Your task to perform on an android device: Open Google Image 0: 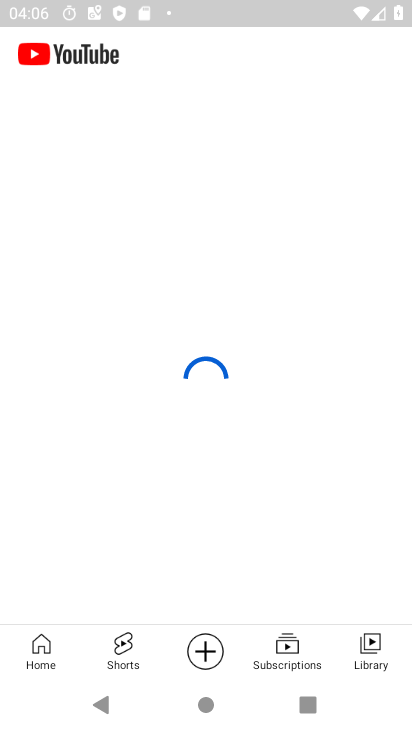
Step 0: click (96, 553)
Your task to perform on an android device: Open Google Image 1: 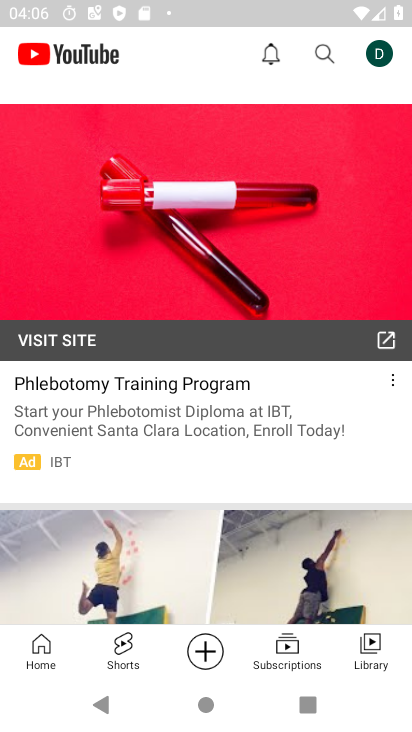
Step 1: press home button
Your task to perform on an android device: Open Google Image 2: 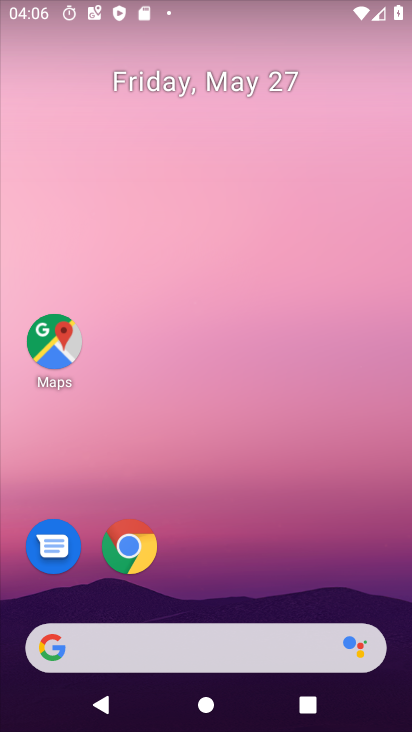
Step 2: drag from (394, 691) to (368, 297)
Your task to perform on an android device: Open Google Image 3: 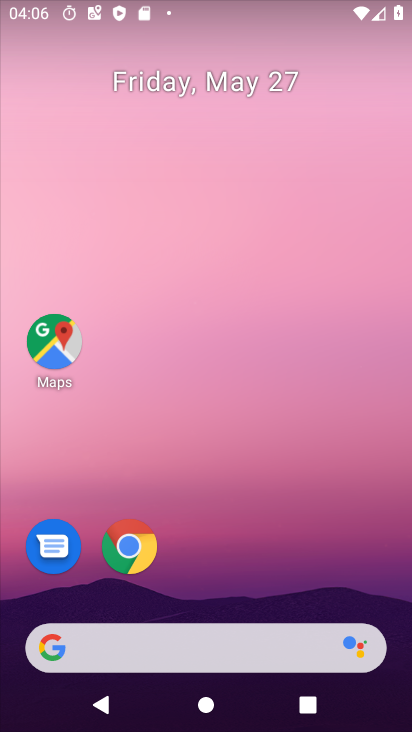
Step 3: drag from (403, 674) to (408, 260)
Your task to perform on an android device: Open Google Image 4: 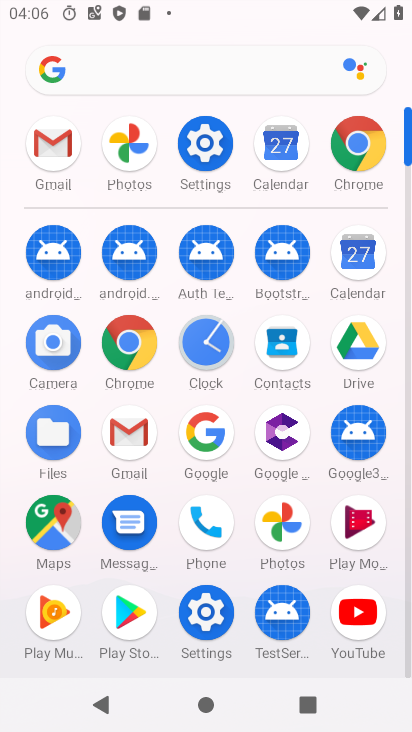
Step 4: click (197, 447)
Your task to perform on an android device: Open Google Image 5: 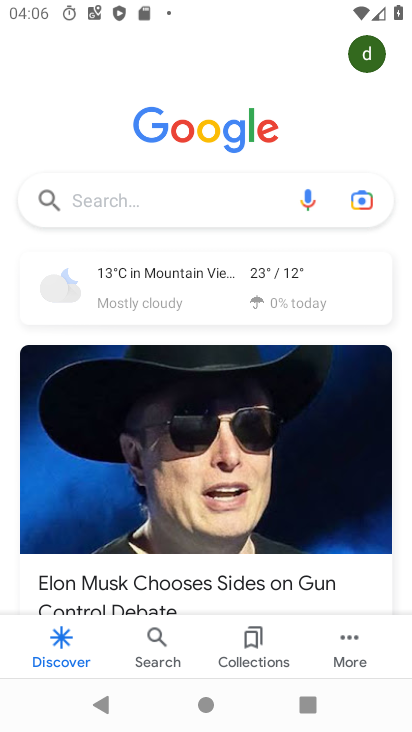
Step 5: click (165, 191)
Your task to perform on an android device: Open Google Image 6: 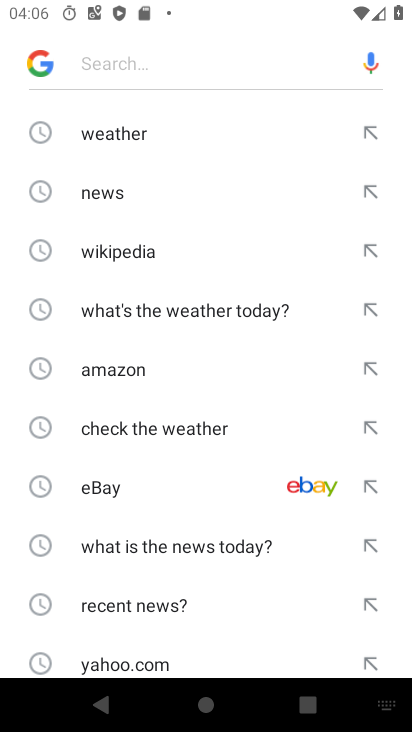
Step 6: task complete